Your task to perform on an android device: toggle airplane mode Image 0: 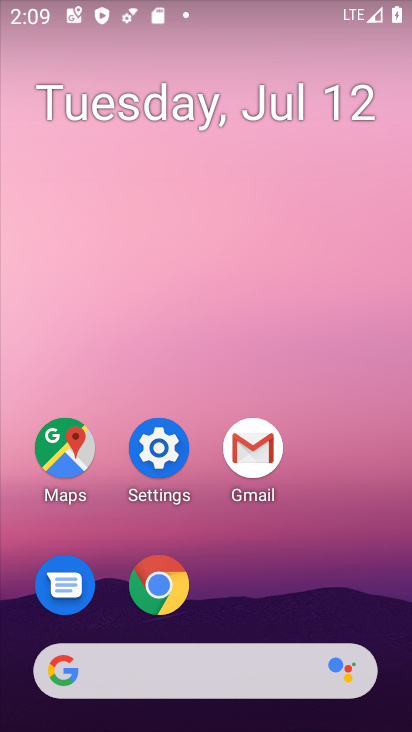
Step 0: drag from (403, 688) to (377, 78)
Your task to perform on an android device: toggle airplane mode Image 1: 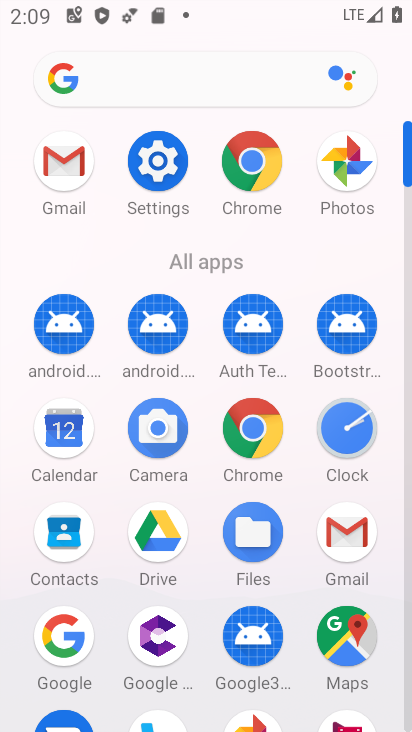
Step 1: click (153, 166)
Your task to perform on an android device: toggle airplane mode Image 2: 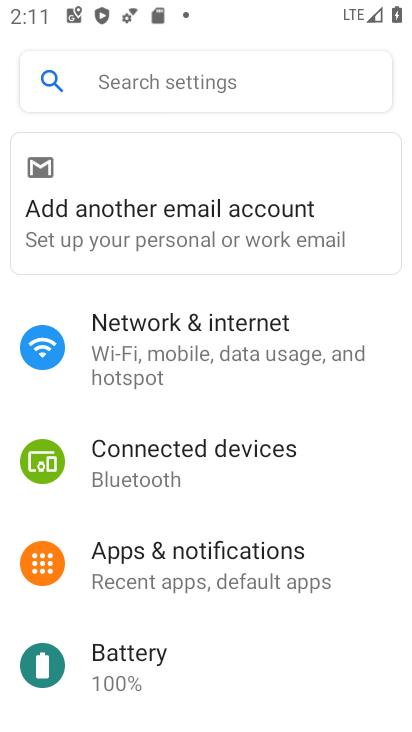
Step 2: click (173, 323)
Your task to perform on an android device: toggle airplane mode Image 3: 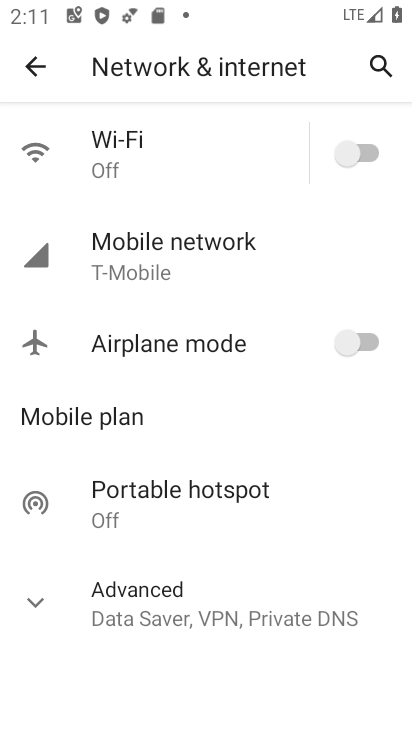
Step 3: click (358, 343)
Your task to perform on an android device: toggle airplane mode Image 4: 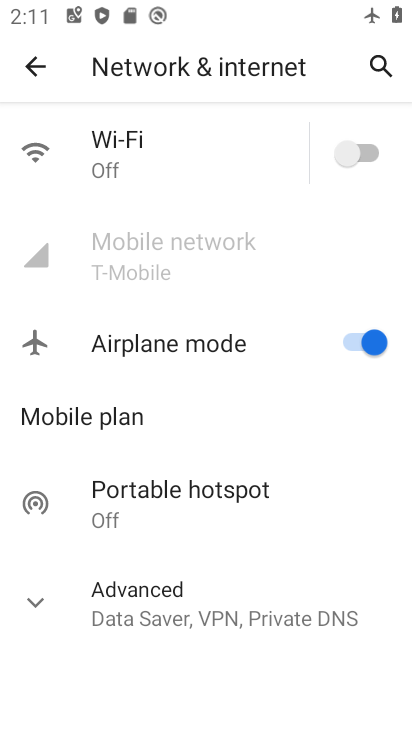
Step 4: task complete